Your task to perform on an android device: create a new album in the google photos Image 0: 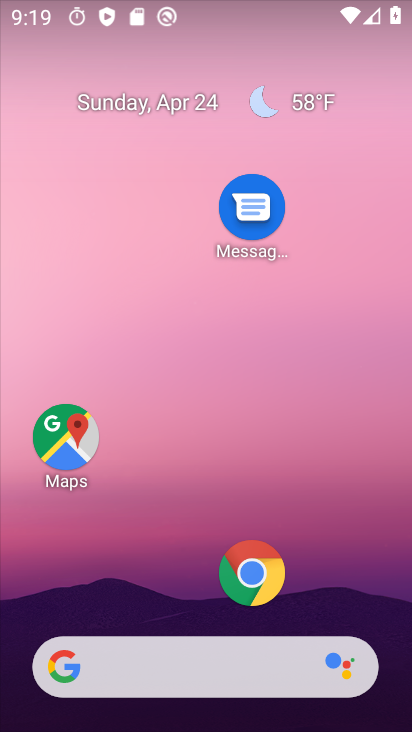
Step 0: drag from (167, 592) to (237, 0)
Your task to perform on an android device: create a new album in the google photos Image 1: 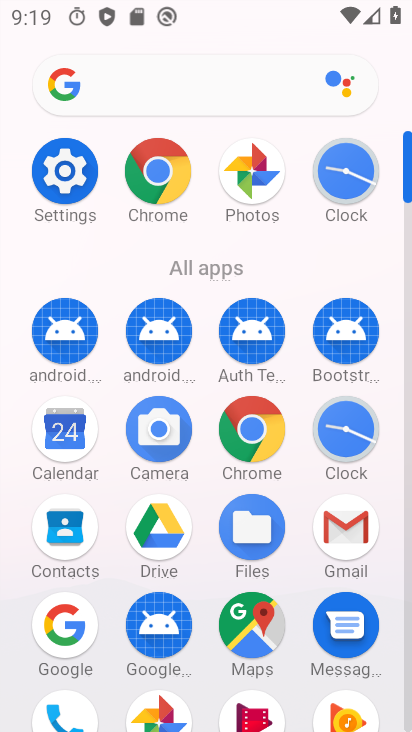
Step 1: drag from (202, 652) to (194, 370)
Your task to perform on an android device: create a new album in the google photos Image 2: 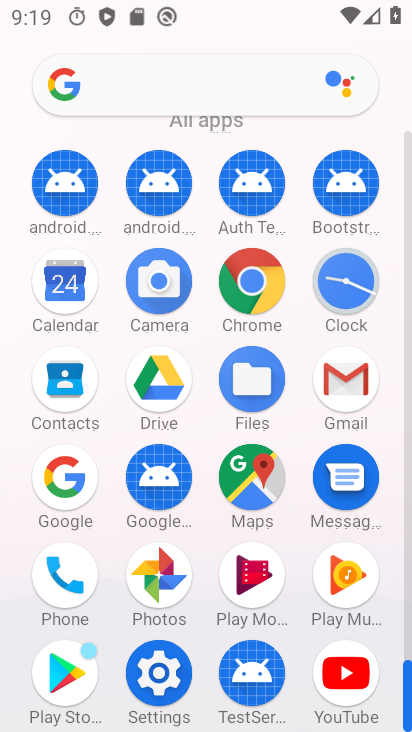
Step 2: click (159, 566)
Your task to perform on an android device: create a new album in the google photos Image 3: 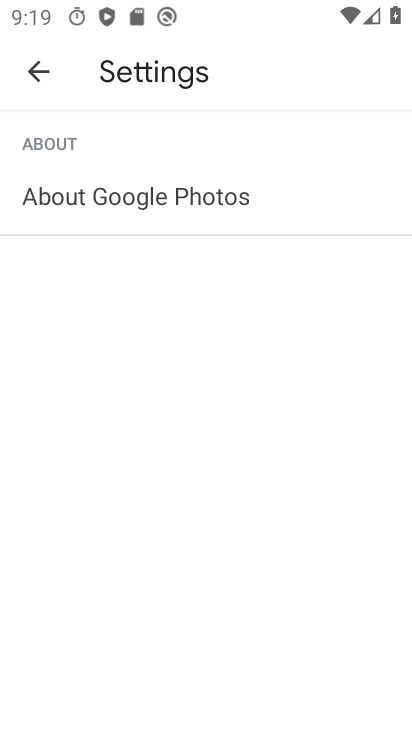
Step 3: click (38, 59)
Your task to perform on an android device: create a new album in the google photos Image 4: 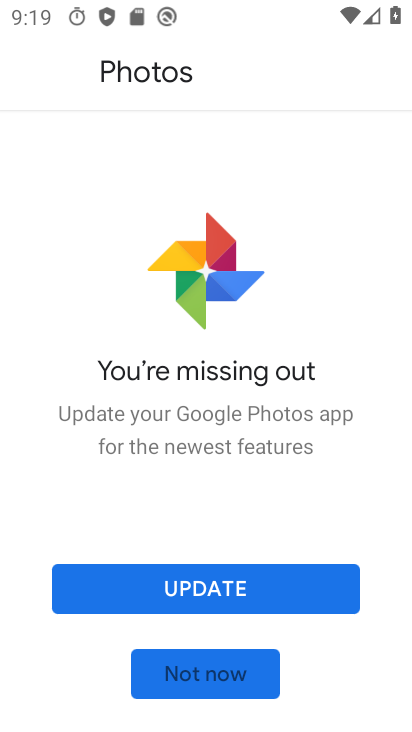
Step 4: click (207, 679)
Your task to perform on an android device: create a new album in the google photos Image 5: 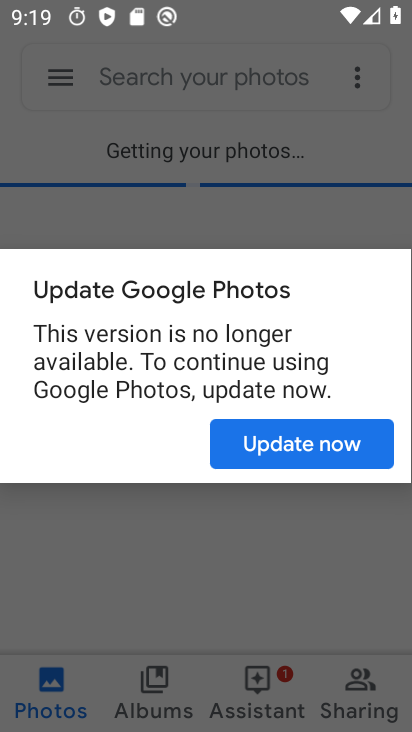
Step 5: click (306, 435)
Your task to perform on an android device: create a new album in the google photos Image 6: 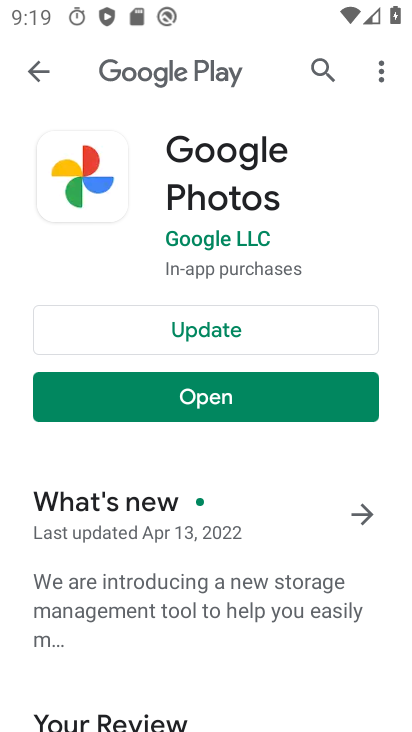
Step 6: click (191, 396)
Your task to perform on an android device: create a new album in the google photos Image 7: 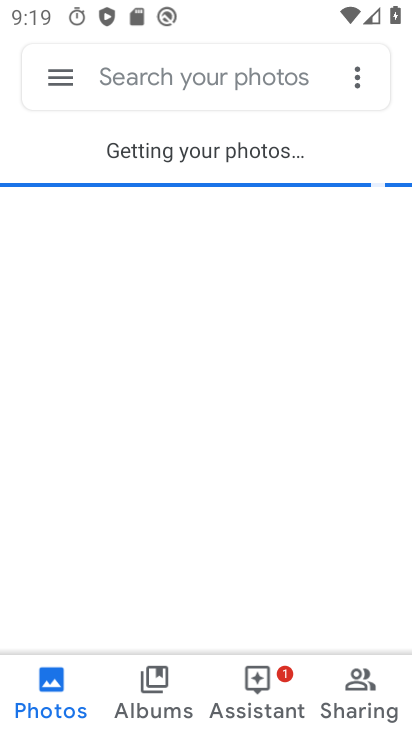
Step 7: click (142, 689)
Your task to perform on an android device: create a new album in the google photos Image 8: 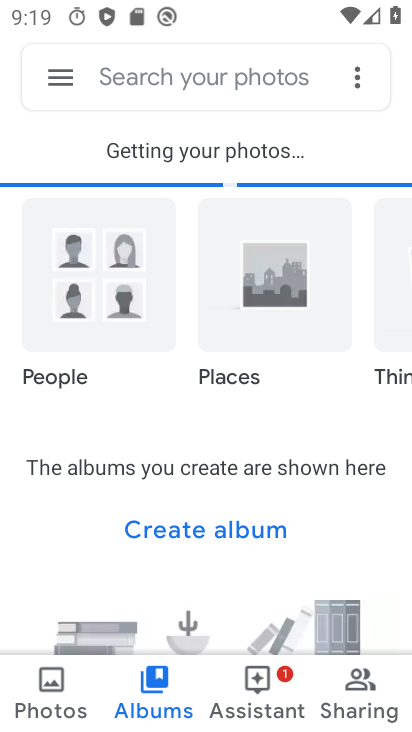
Step 8: click (239, 525)
Your task to perform on an android device: create a new album in the google photos Image 9: 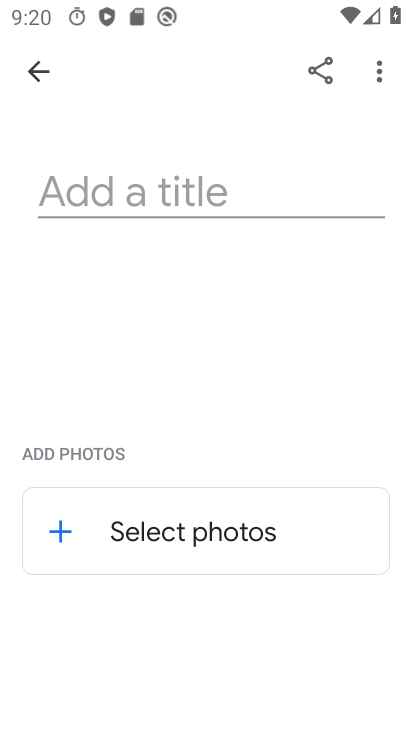
Step 9: click (205, 180)
Your task to perform on an android device: create a new album in the google photos Image 10: 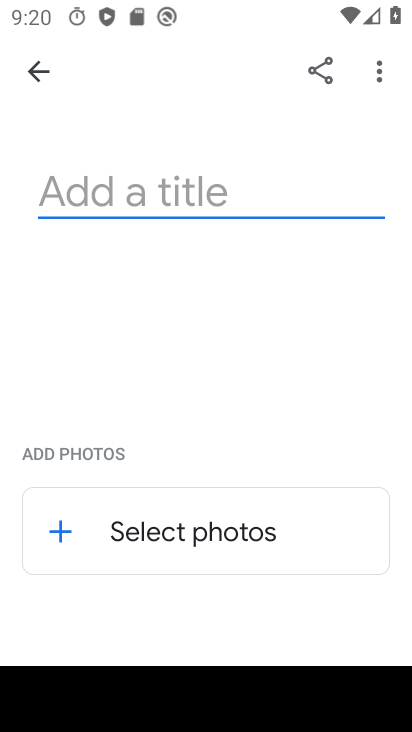
Step 10: type "aliens"
Your task to perform on an android device: create a new album in the google photos Image 11: 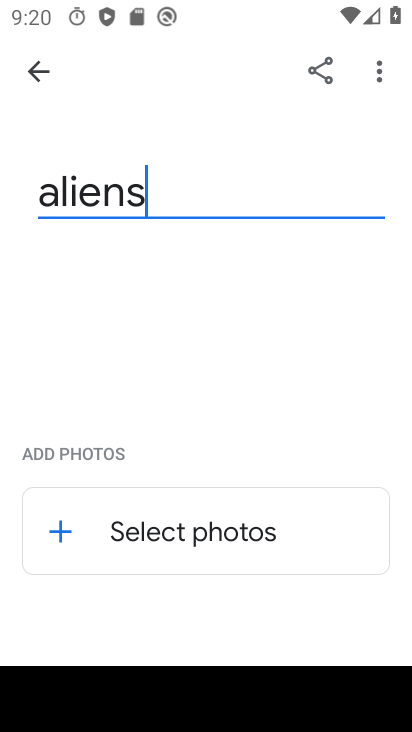
Step 11: click (44, 511)
Your task to perform on an android device: create a new album in the google photos Image 12: 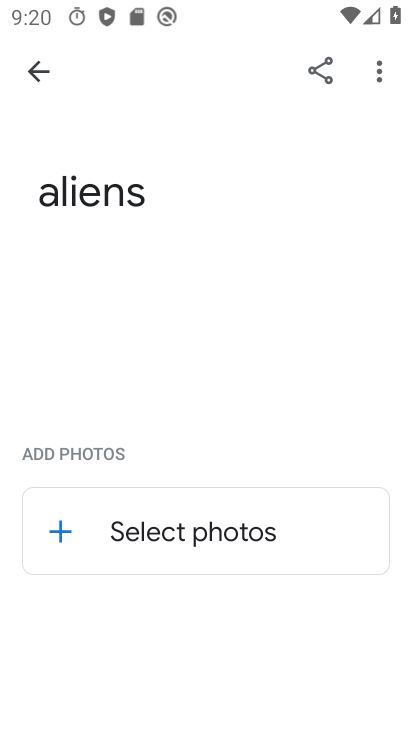
Step 12: click (61, 530)
Your task to perform on an android device: create a new album in the google photos Image 13: 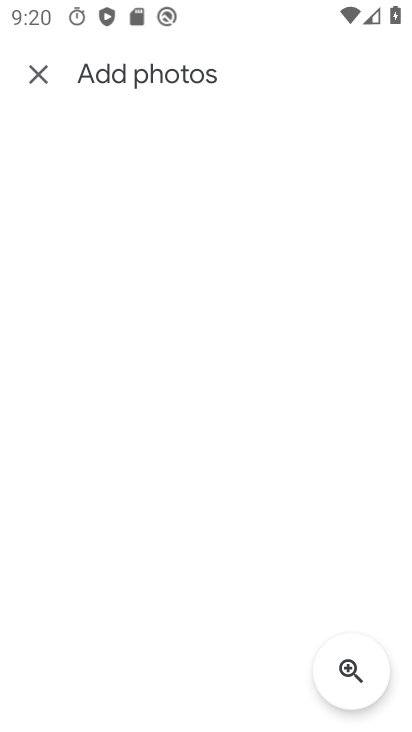
Step 13: drag from (182, 287) to (141, 585)
Your task to perform on an android device: create a new album in the google photos Image 14: 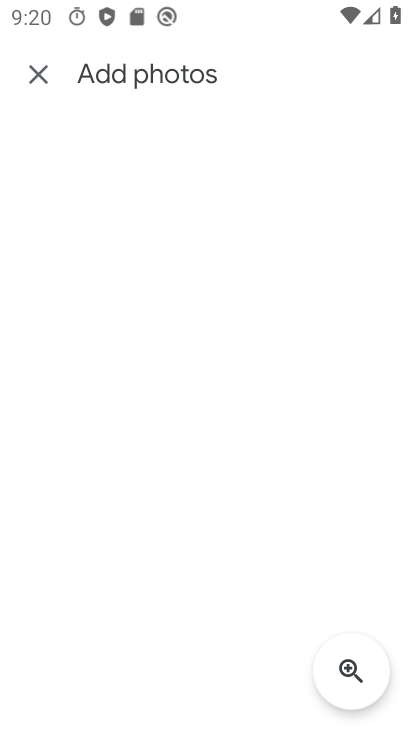
Step 14: click (43, 74)
Your task to perform on an android device: create a new album in the google photos Image 15: 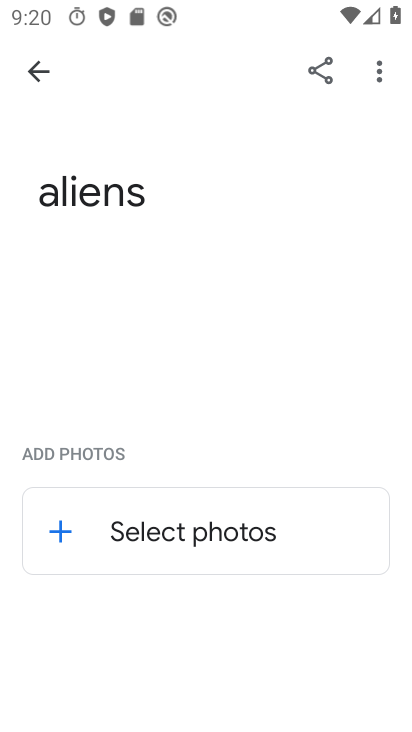
Step 15: click (62, 528)
Your task to perform on an android device: create a new album in the google photos Image 16: 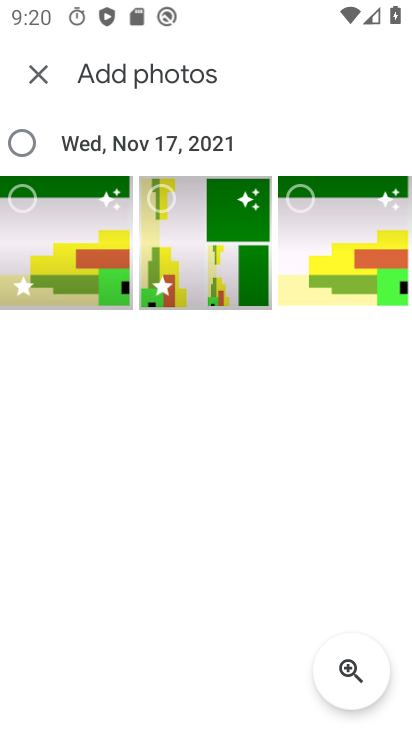
Step 16: click (27, 203)
Your task to perform on an android device: create a new album in the google photos Image 17: 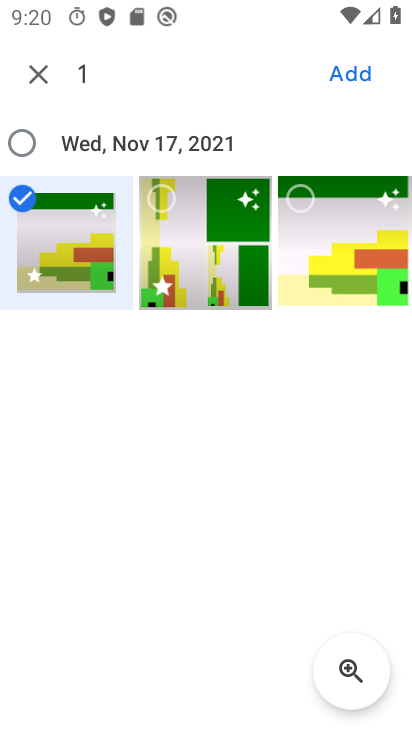
Step 17: click (187, 216)
Your task to perform on an android device: create a new album in the google photos Image 18: 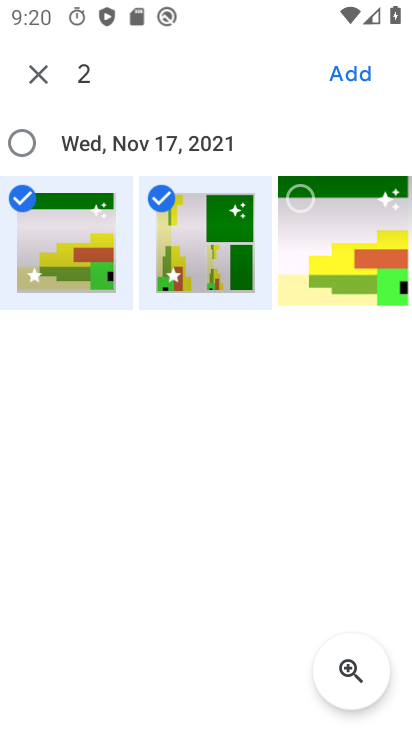
Step 18: click (312, 215)
Your task to perform on an android device: create a new album in the google photos Image 19: 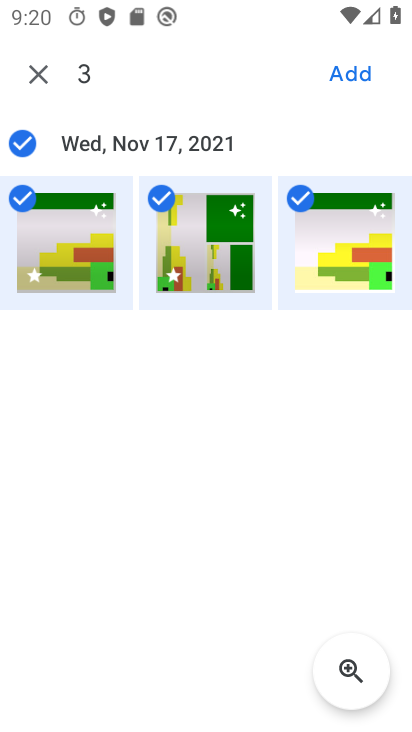
Step 19: click (361, 65)
Your task to perform on an android device: create a new album in the google photos Image 20: 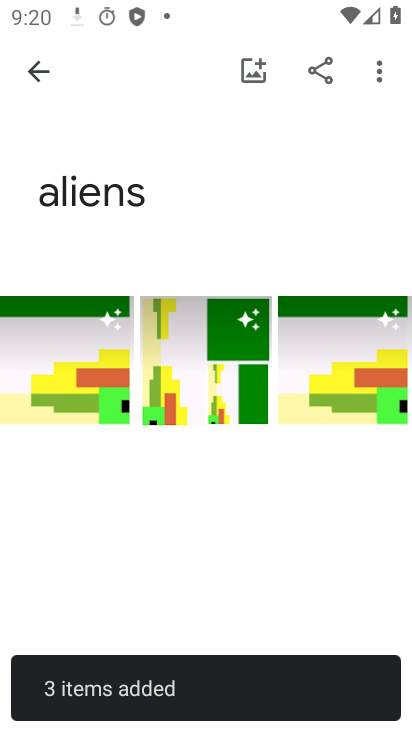
Step 20: task complete